Your task to perform on an android device: turn off javascript in the chrome app Image 0: 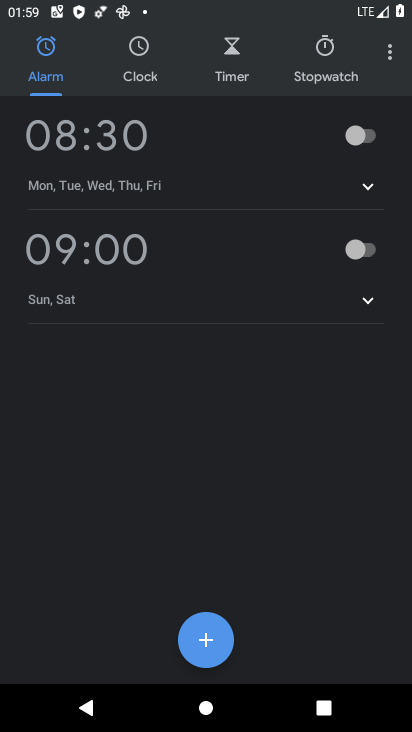
Step 0: press home button
Your task to perform on an android device: turn off javascript in the chrome app Image 1: 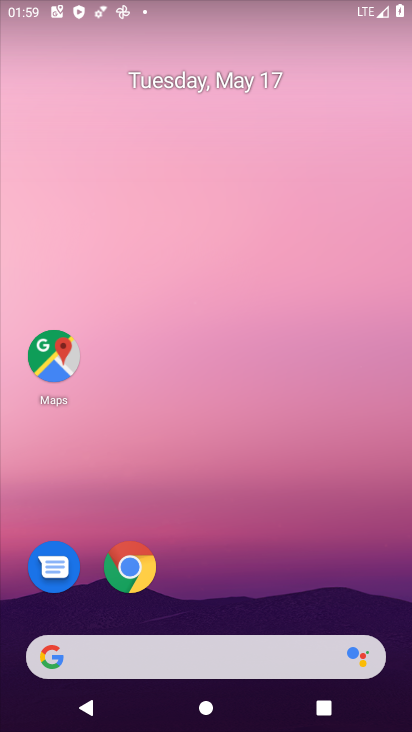
Step 1: click (130, 568)
Your task to perform on an android device: turn off javascript in the chrome app Image 2: 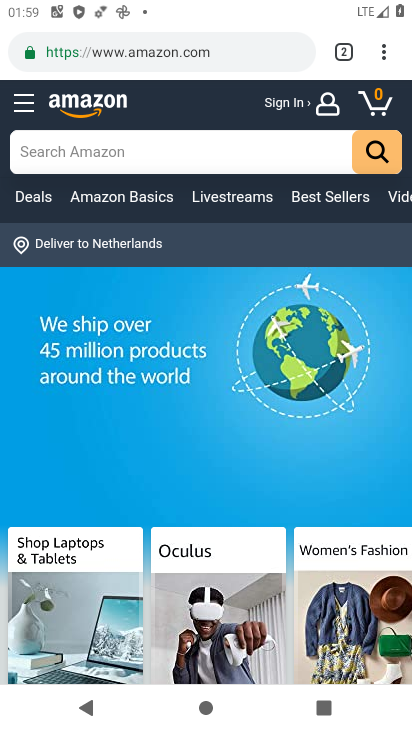
Step 2: click (384, 57)
Your task to perform on an android device: turn off javascript in the chrome app Image 3: 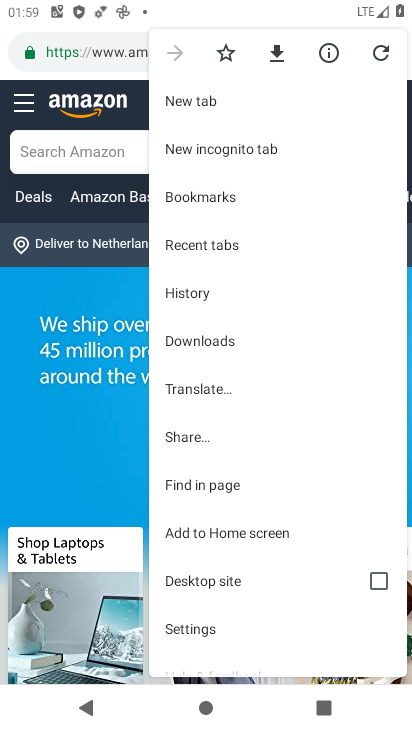
Step 3: click (205, 630)
Your task to perform on an android device: turn off javascript in the chrome app Image 4: 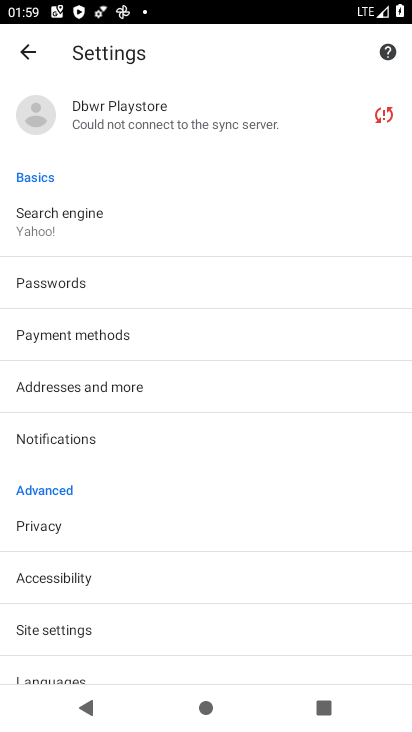
Step 4: drag from (171, 633) to (228, 224)
Your task to perform on an android device: turn off javascript in the chrome app Image 5: 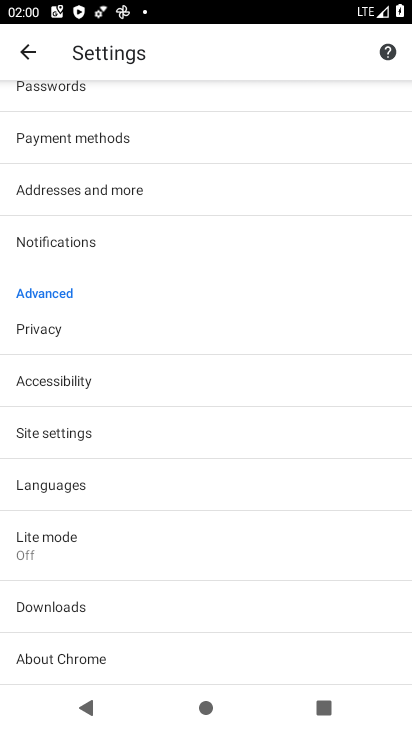
Step 5: click (60, 439)
Your task to perform on an android device: turn off javascript in the chrome app Image 6: 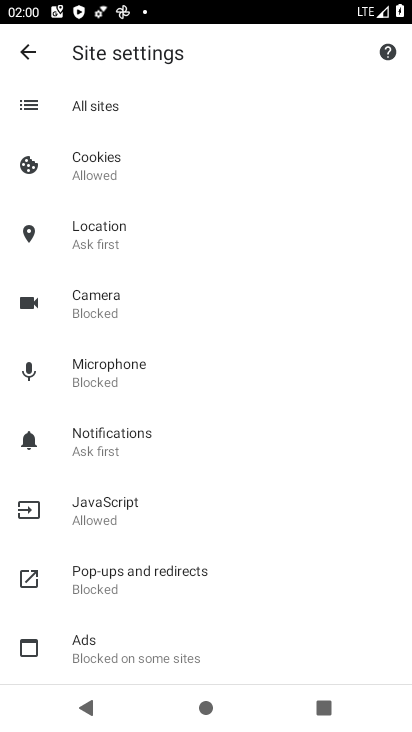
Step 6: click (118, 512)
Your task to perform on an android device: turn off javascript in the chrome app Image 7: 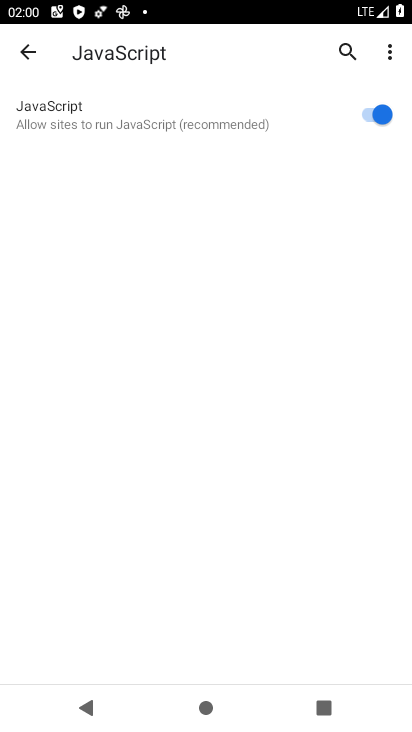
Step 7: click (366, 112)
Your task to perform on an android device: turn off javascript in the chrome app Image 8: 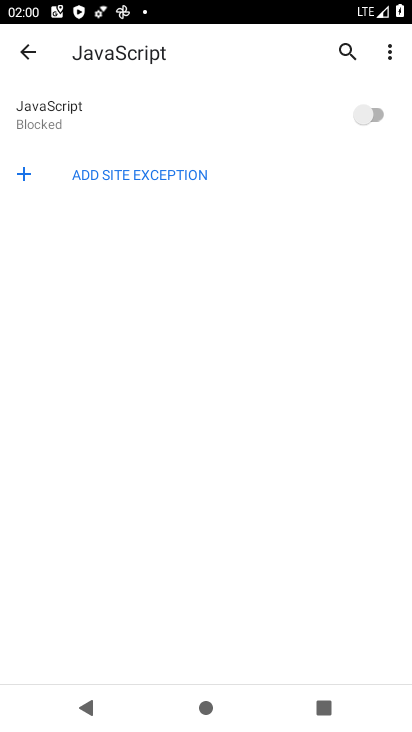
Step 8: task complete